Your task to perform on an android device: clear history in the chrome app Image 0: 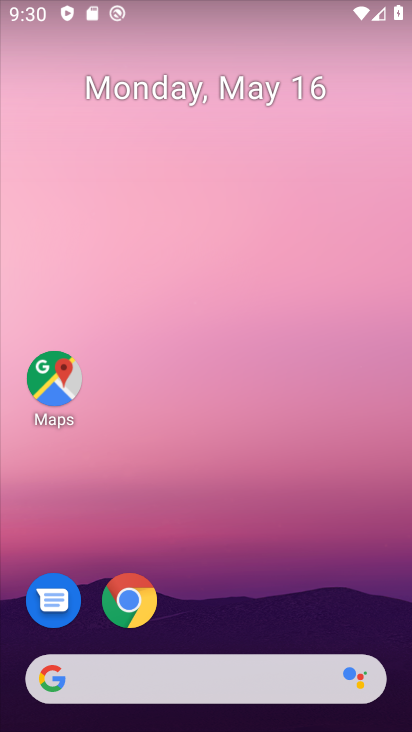
Step 0: click (122, 597)
Your task to perform on an android device: clear history in the chrome app Image 1: 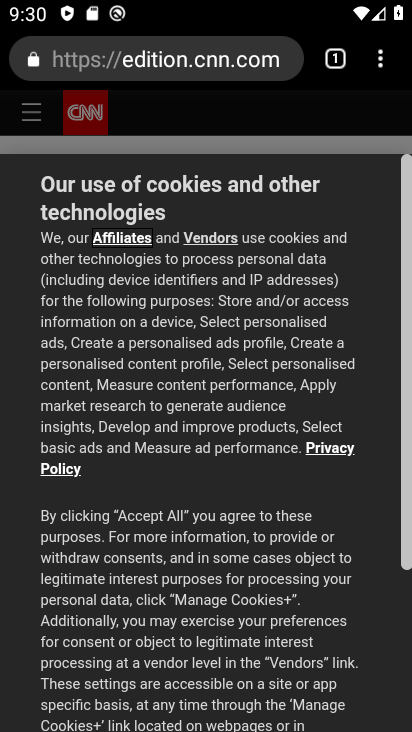
Step 1: drag from (388, 58) to (205, 327)
Your task to perform on an android device: clear history in the chrome app Image 2: 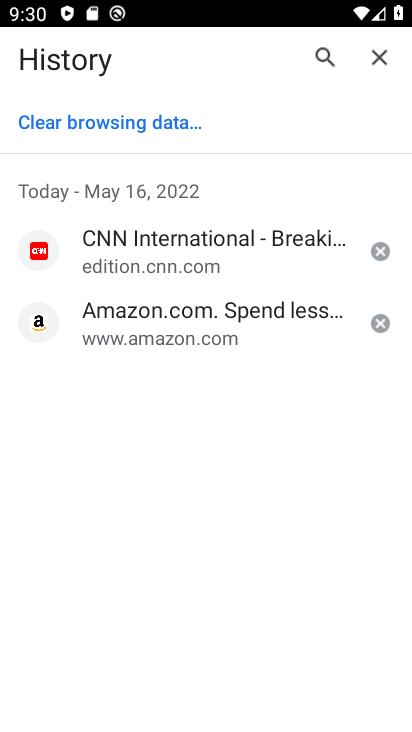
Step 2: click (126, 119)
Your task to perform on an android device: clear history in the chrome app Image 3: 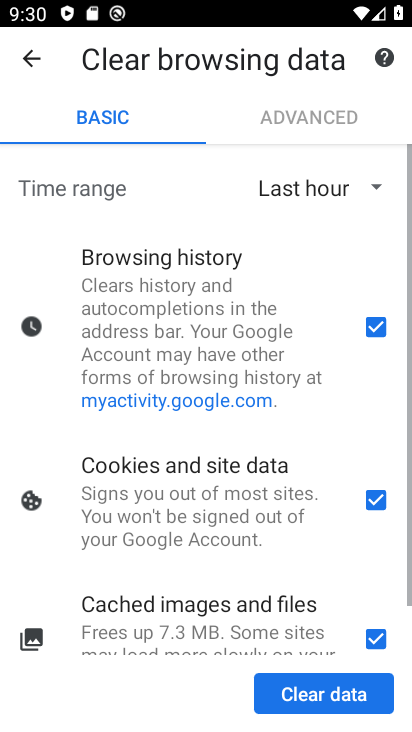
Step 3: click (316, 199)
Your task to perform on an android device: clear history in the chrome app Image 4: 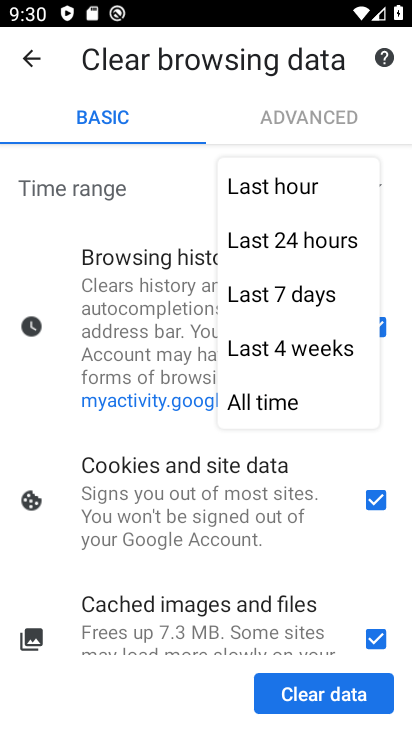
Step 4: click (248, 402)
Your task to perform on an android device: clear history in the chrome app Image 5: 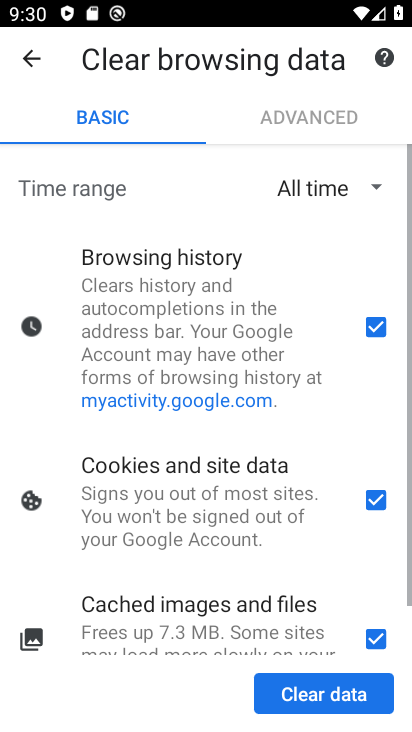
Step 5: click (334, 699)
Your task to perform on an android device: clear history in the chrome app Image 6: 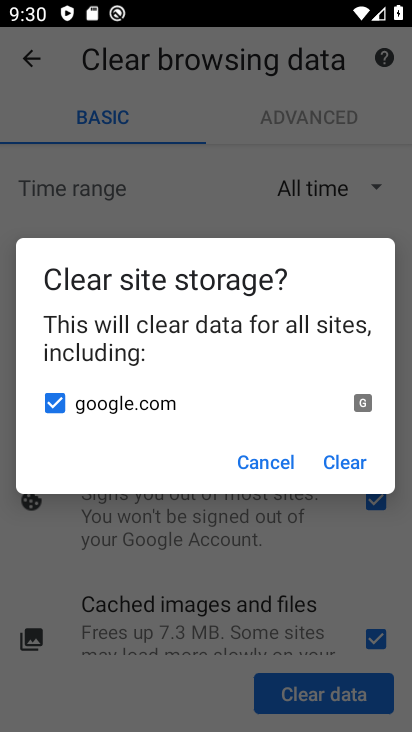
Step 6: click (351, 458)
Your task to perform on an android device: clear history in the chrome app Image 7: 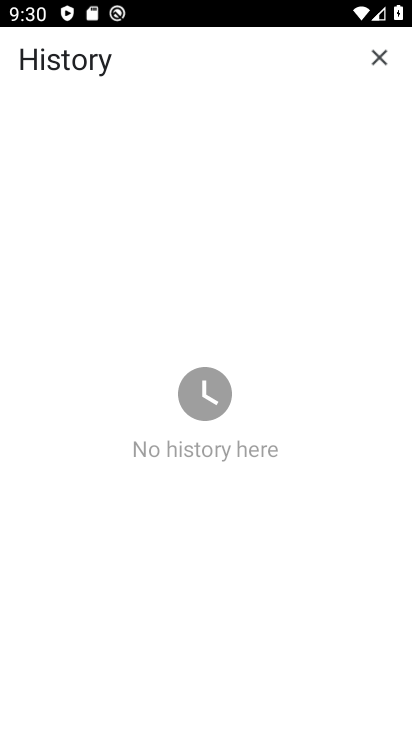
Step 7: task complete